Your task to perform on an android device: Search for "logitech g pro" on target, select the first entry, and add it to the cart. Image 0: 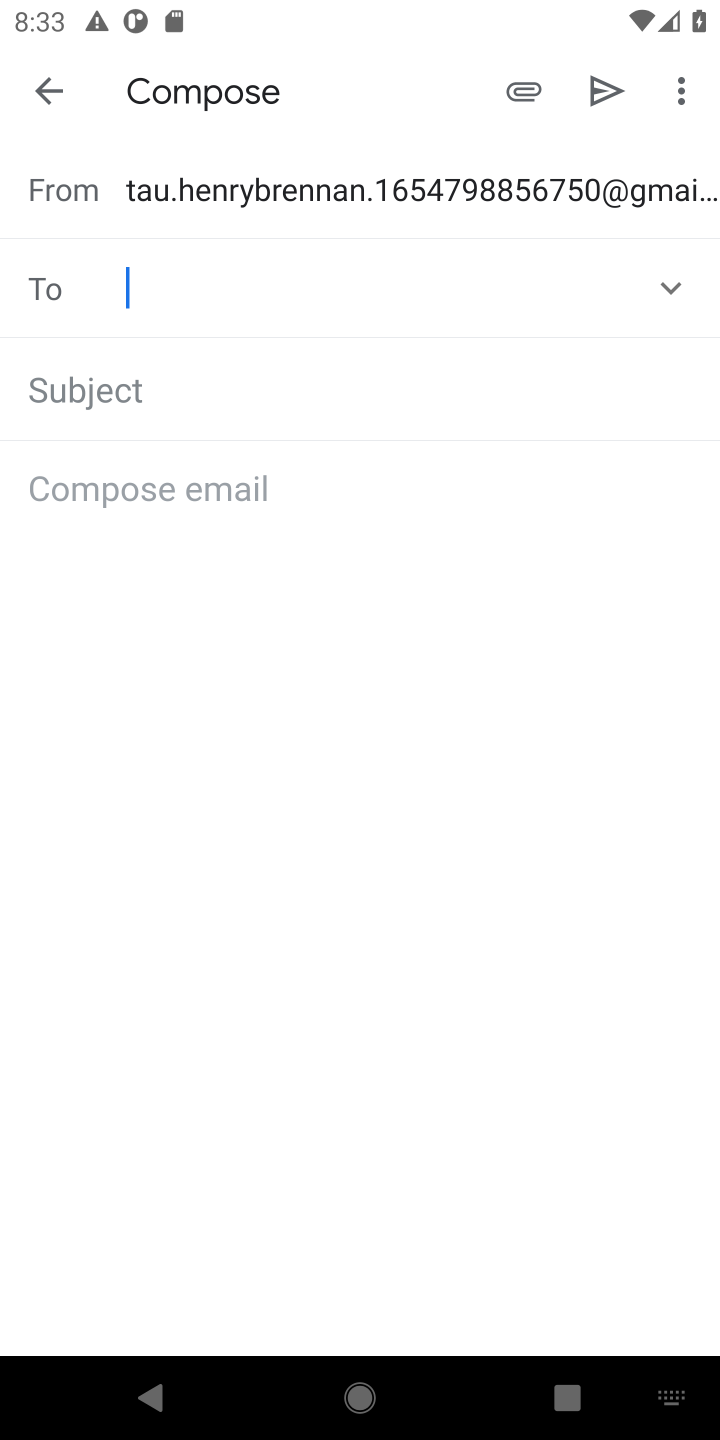
Step 0: press home button
Your task to perform on an android device: Search for "logitech g pro" on target, select the first entry, and add it to the cart. Image 1: 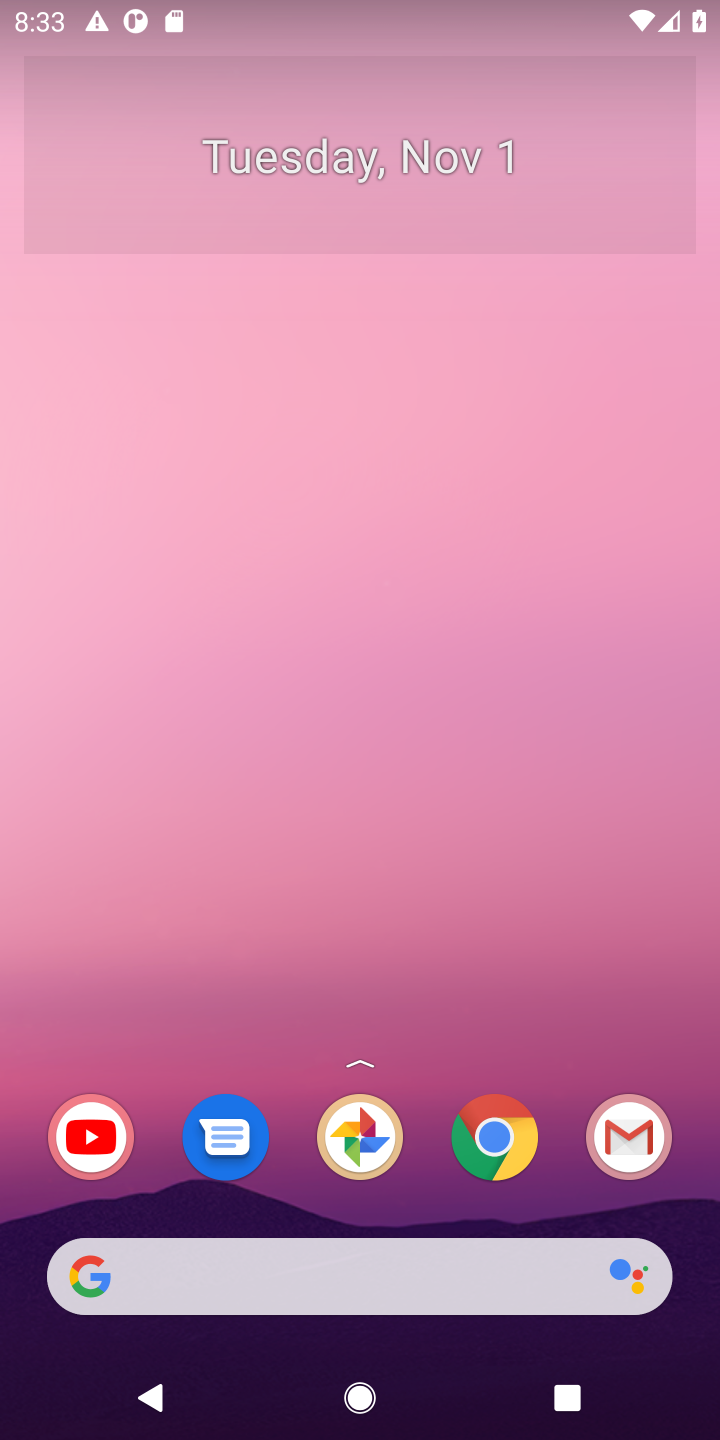
Step 1: click (313, 1263)
Your task to perform on an android device: Search for "logitech g pro" on target, select the first entry, and add it to the cart. Image 2: 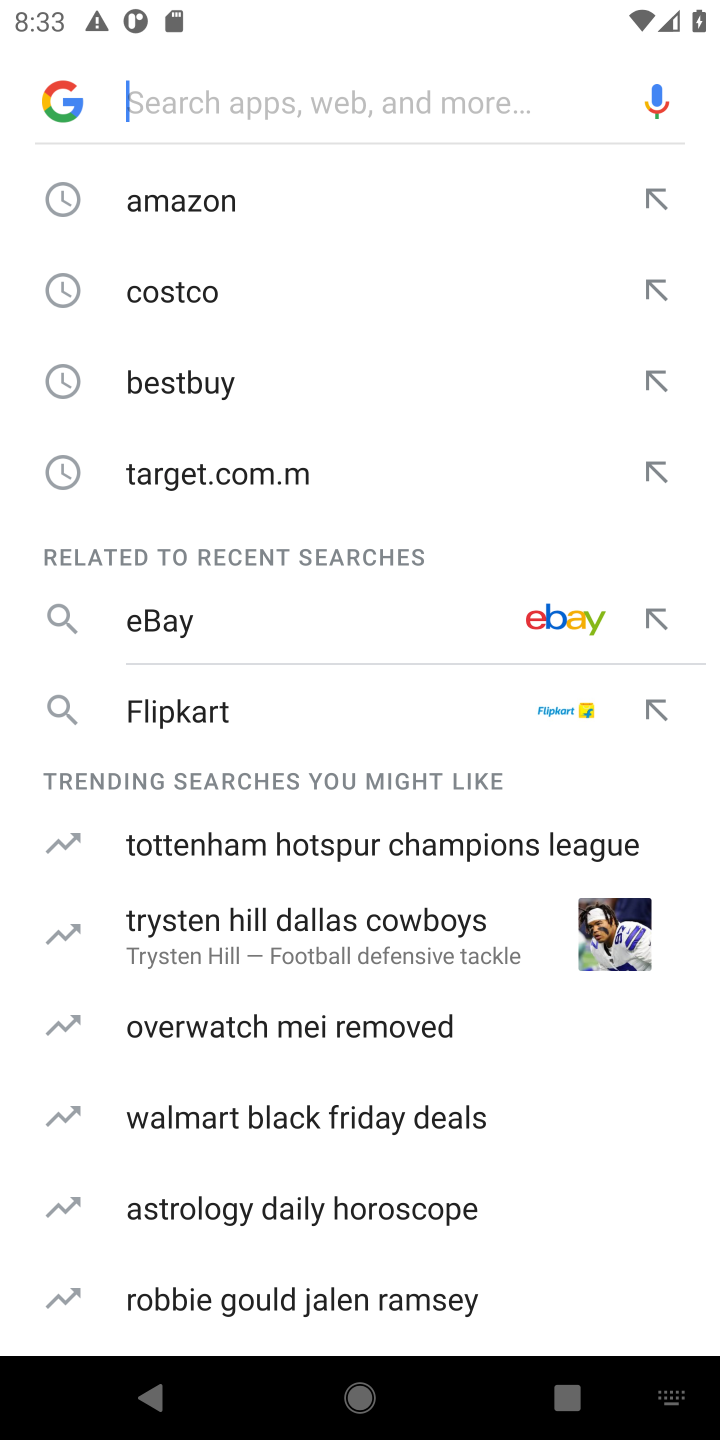
Step 2: click (275, 471)
Your task to perform on an android device: Search for "logitech g pro" on target, select the first entry, and add it to the cart. Image 3: 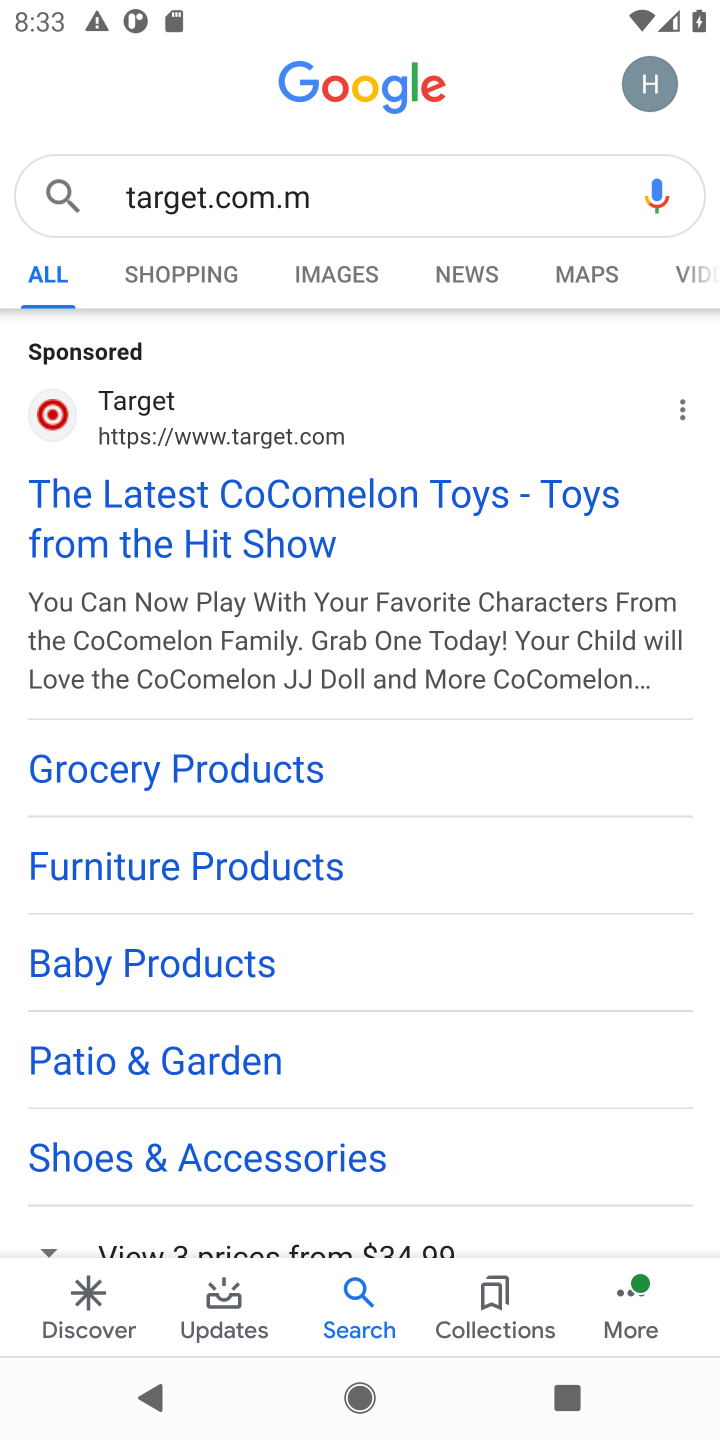
Step 3: click (120, 386)
Your task to perform on an android device: Search for "logitech g pro" on target, select the first entry, and add it to the cart. Image 4: 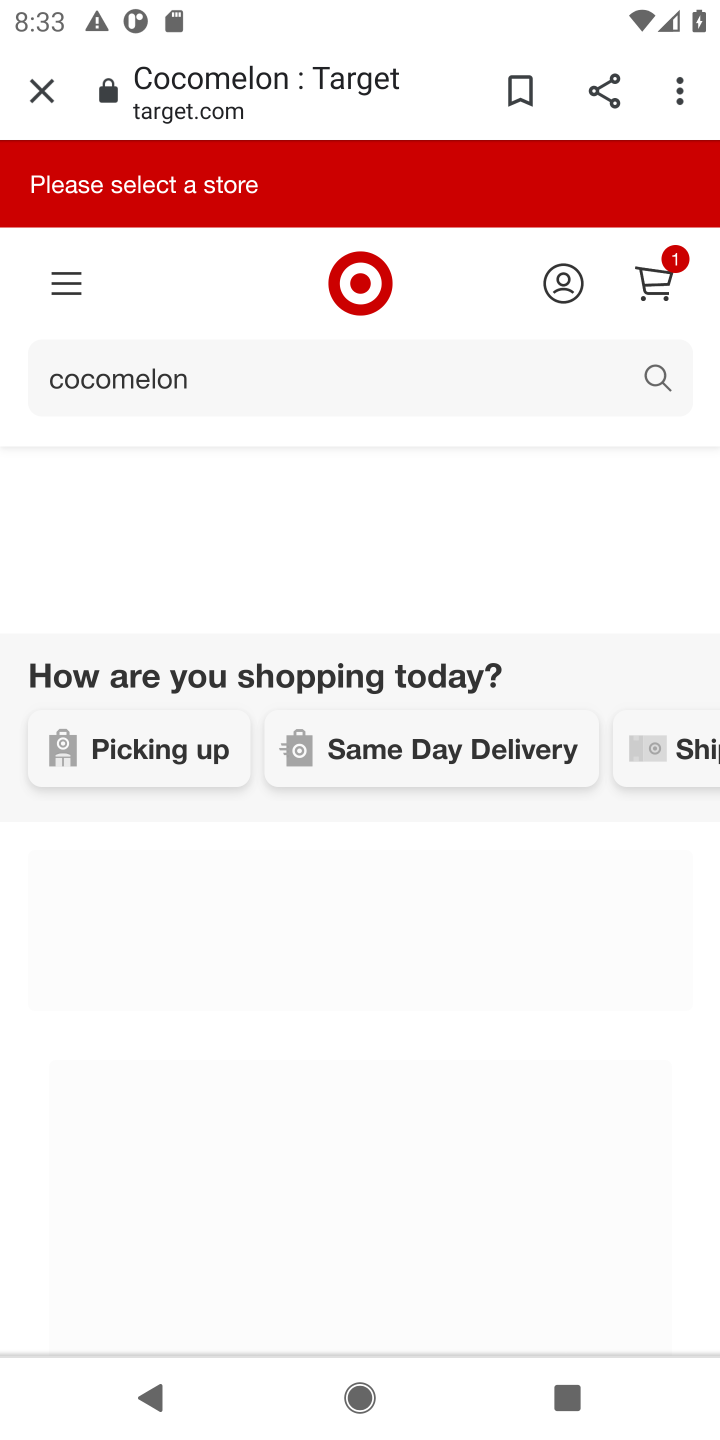
Step 4: click (313, 368)
Your task to perform on an android device: Search for "logitech g pro" on target, select the first entry, and add it to the cart. Image 5: 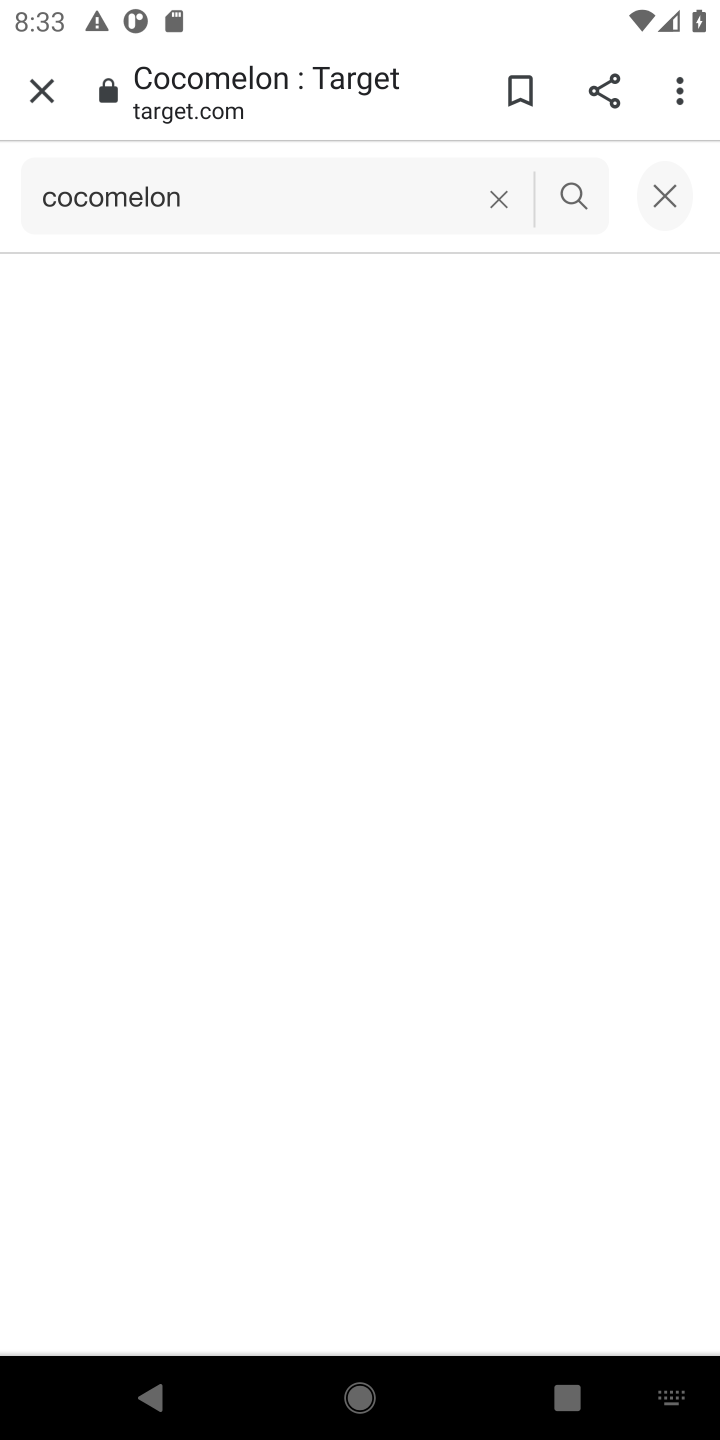
Step 5: click (478, 200)
Your task to perform on an android device: Search for "logitech g pro" on target, select the first entry, and add it to the cart. Image 6: 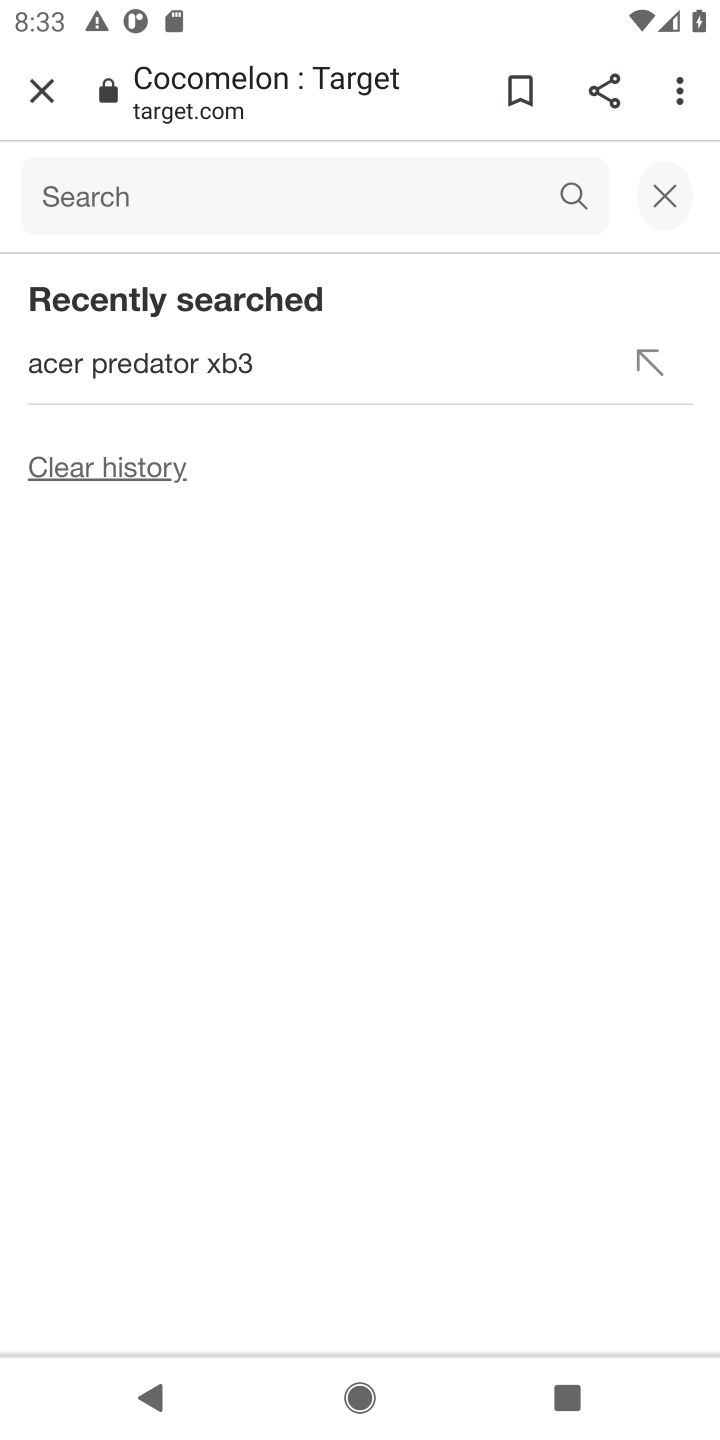
Step 6: click (354, 202)
Your task to perform on an android device: Search for "logitech g pro" on target, select the first entry, and add it to the cart. Image 7: 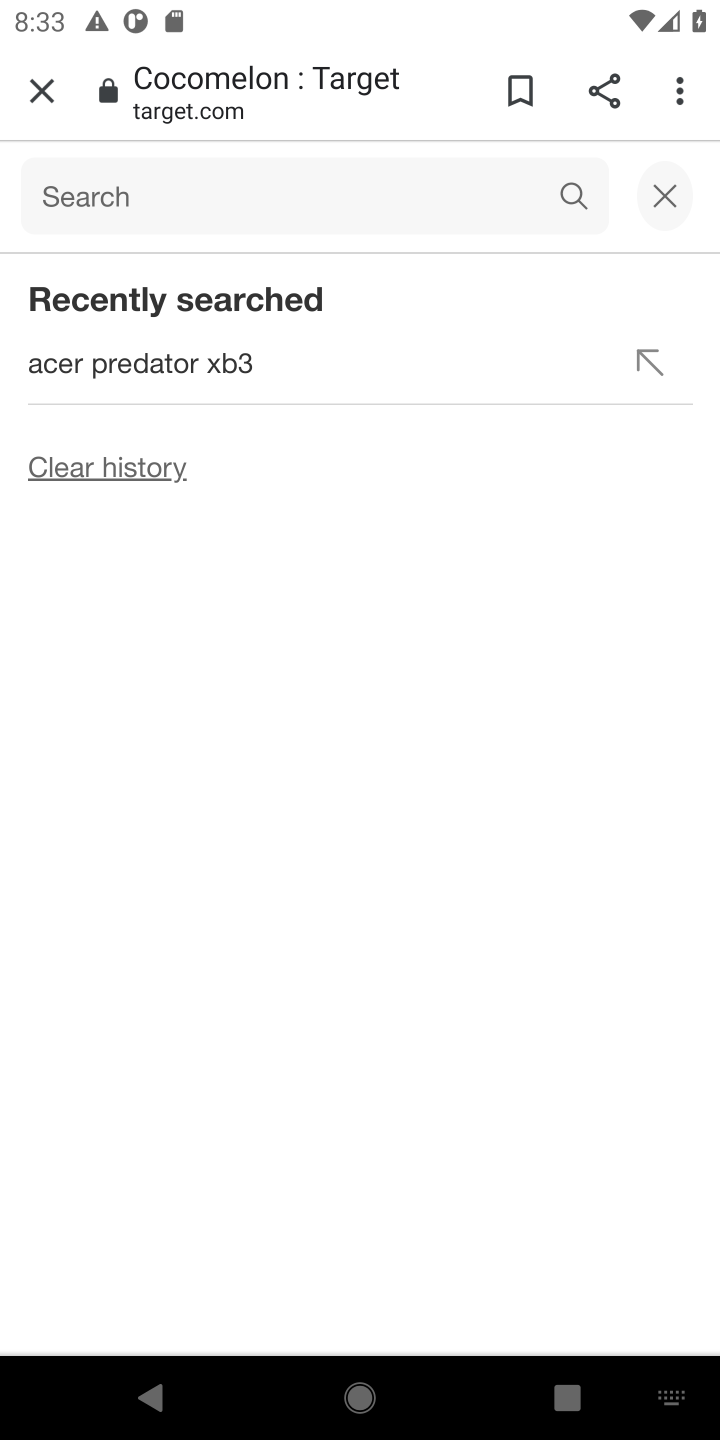
Step 7: type "logitech g pro"
Your task to perform on an android device: Search for "logitech g pro" on target, select the first entry, and add it to the cart. Image 8: 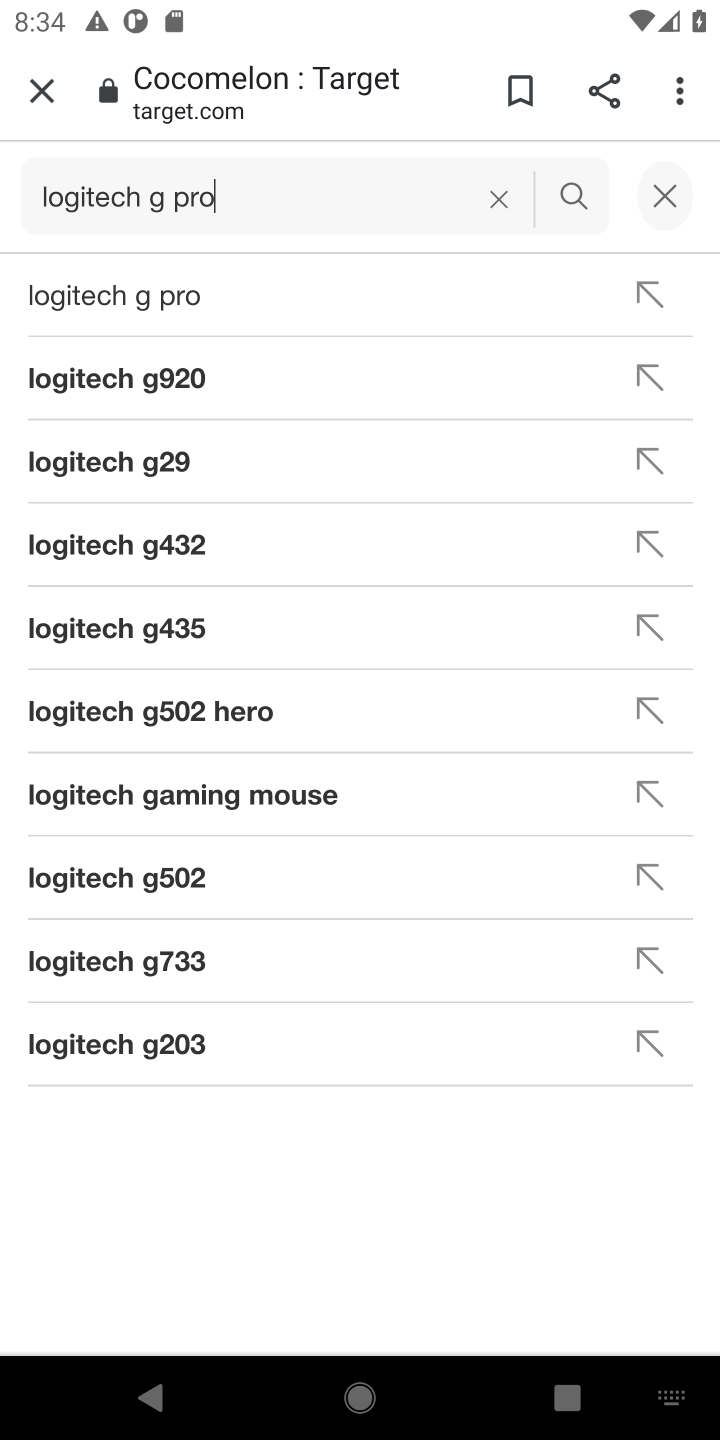
Step 8: click (172, 296)
Your task to perform on an android device: Search for "logitech g pro" on target, select the first entry, and add it to the cart. Image 9: 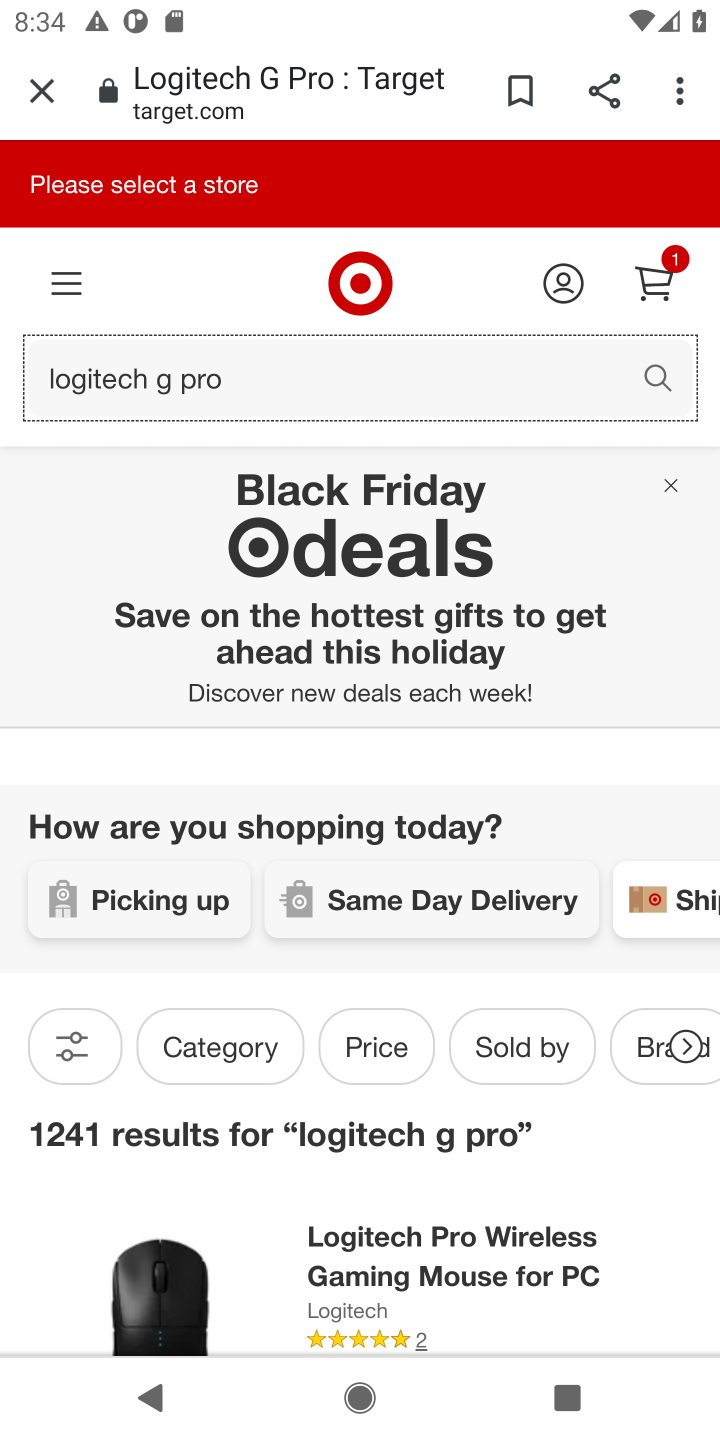
Step 9: click (311, 1249)
Your task to perform on an android device: Search for "logitech g pro" on target, select the first entry, and add it to the cart. Image 10: 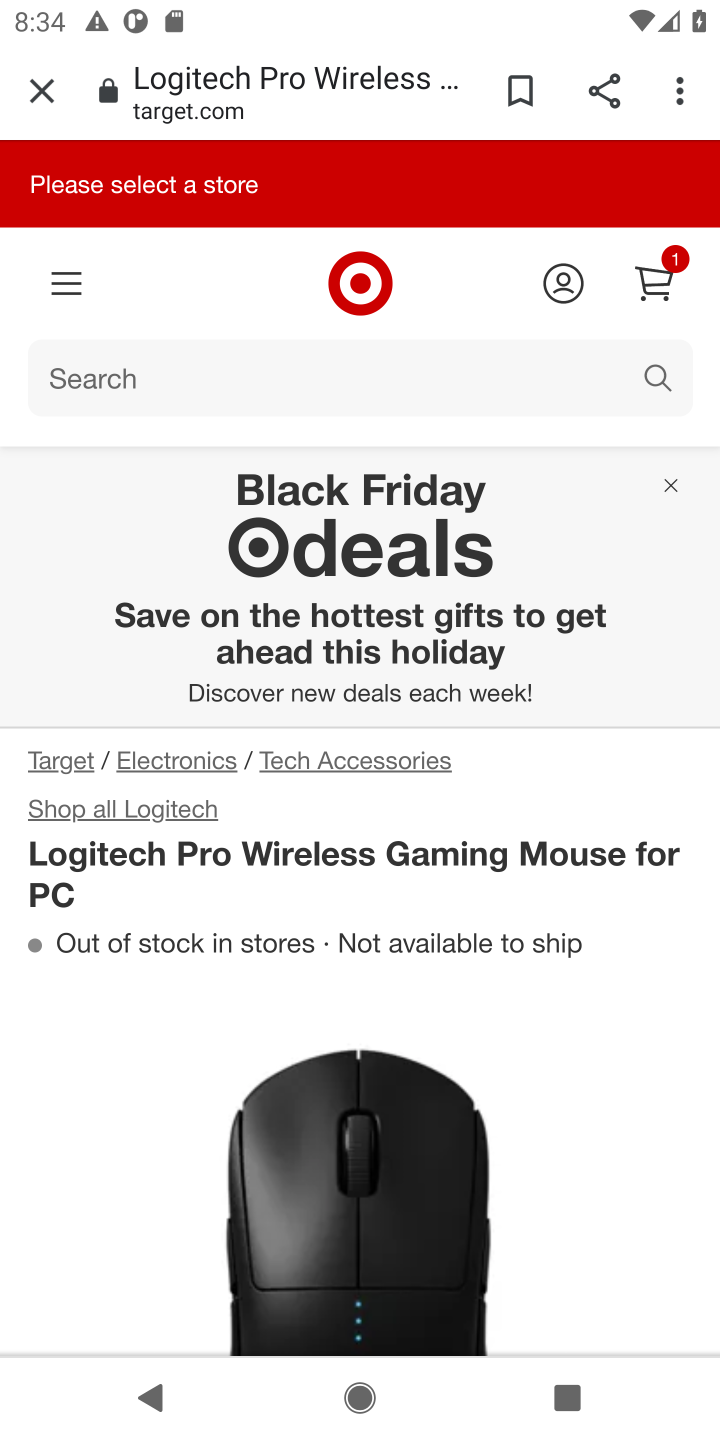
Step 10: drag from (553, 908) to (562, 670)
Your task to perform on an android device: Search for "logitech g pro" on target, select the first entry, and add it to the cart. Image 11: 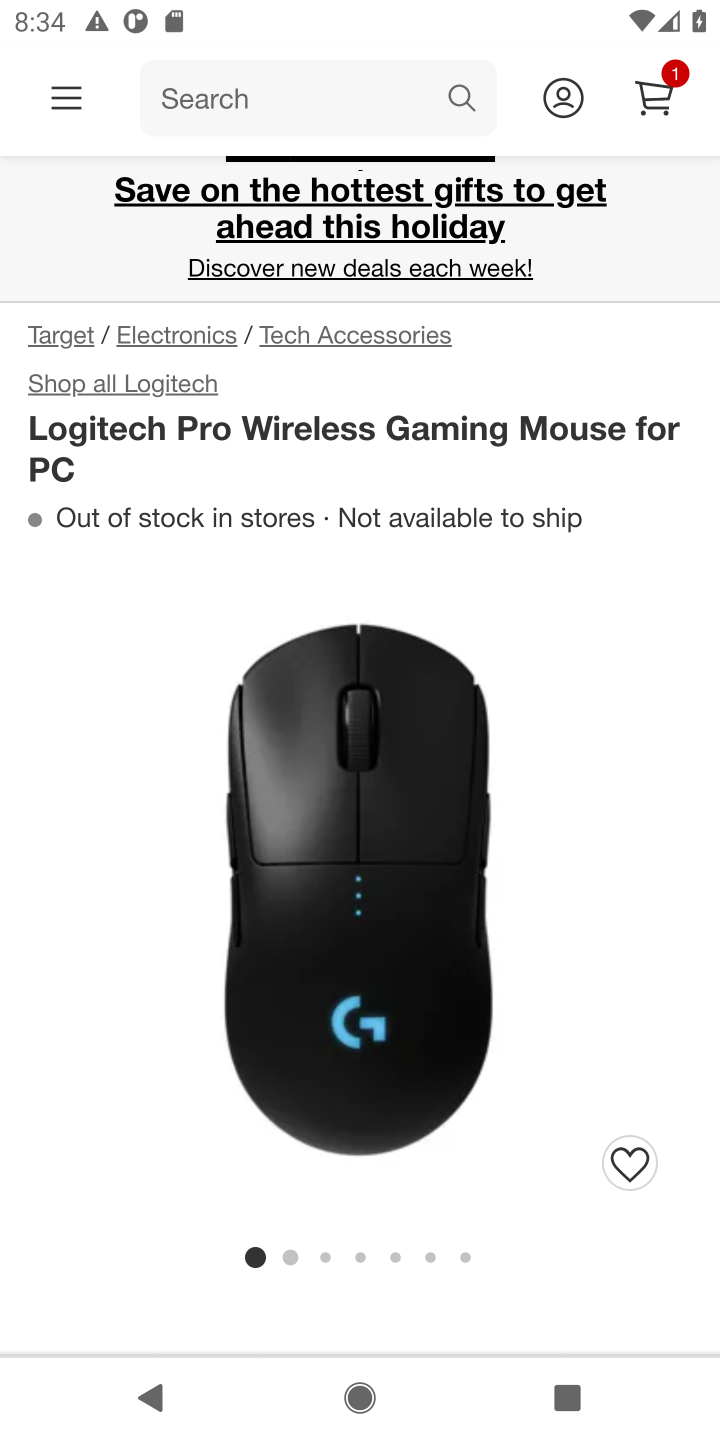
Step 11: drag from (534, 639) to (585, 262)
Your task to perform on an android device: Search for "logitech g pro" on target, select the first entry, and add it to the cart. Image 12: 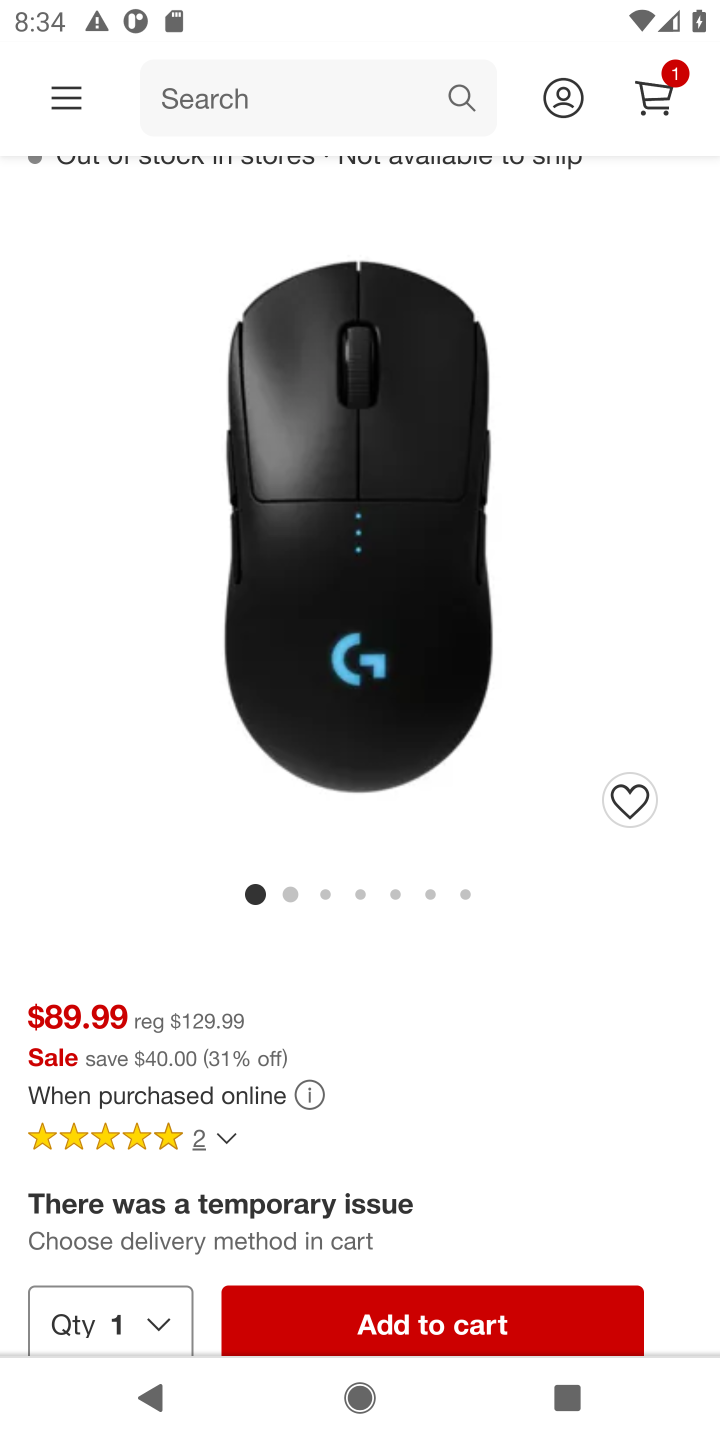
Step 12: click (377, 1318)
Your task to perform on an android device: Search for "logitech g pro" on target, select the first entry, and add it to the cart. Image 13: 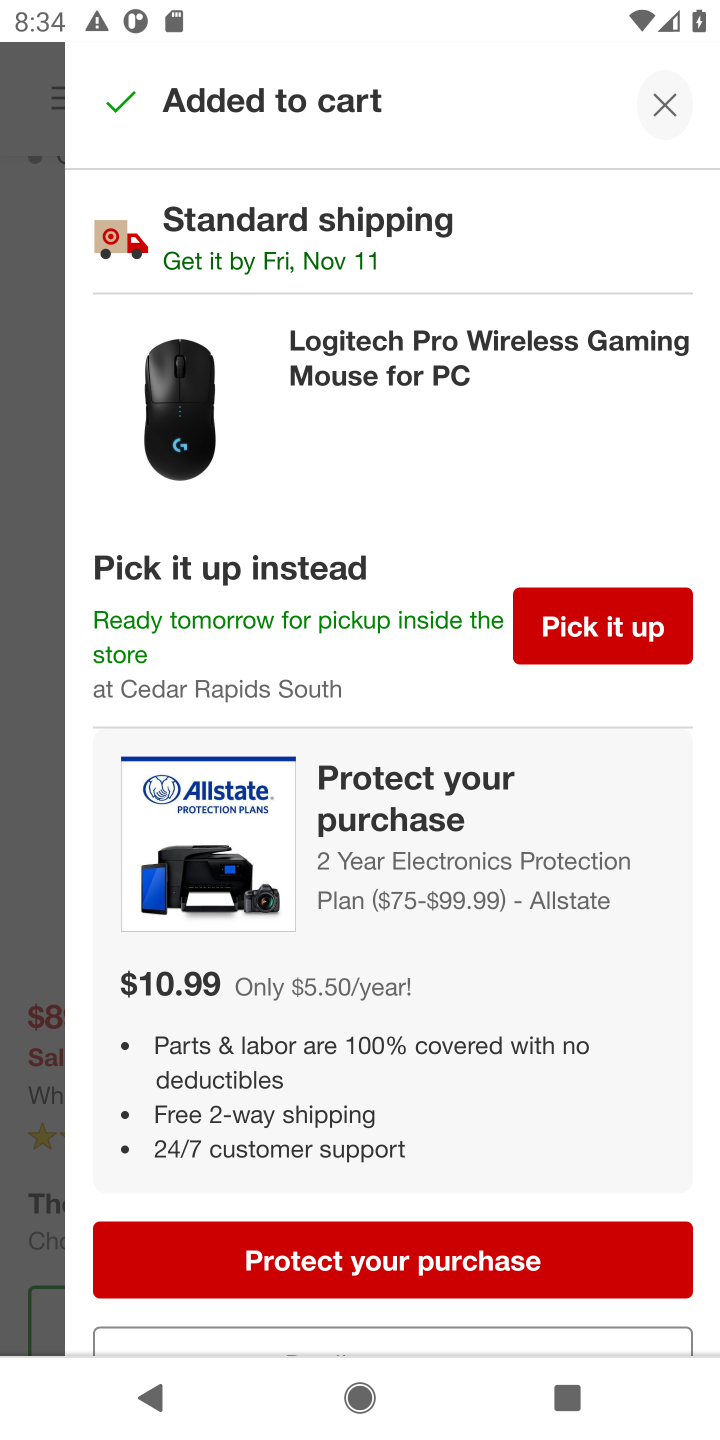
Step 13: task complete